Your task to perform on an android device: Show me the alarms in the clock app Image 0: 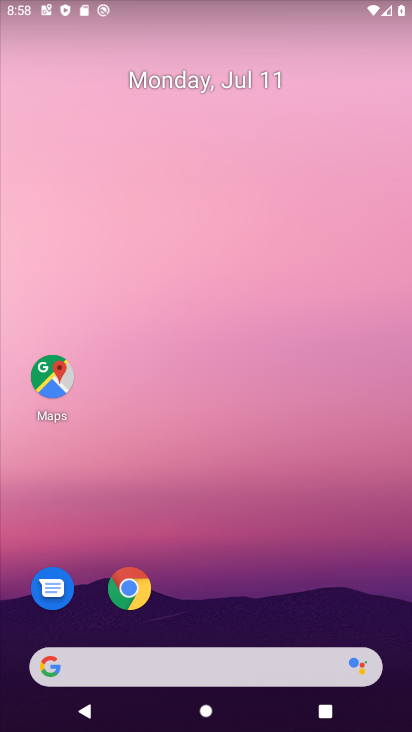
Step 0: drag from (204, 556) to (332, 7)
Your task to perform on an android device: Show me the alarms in the clock app Image 1: 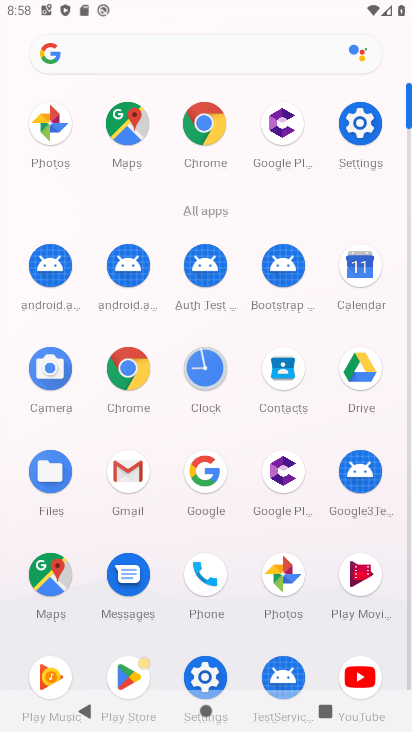
Step 1: click (212, 366)
Your task to perform on an android device: Show me the alarms in the clock app Image 2: 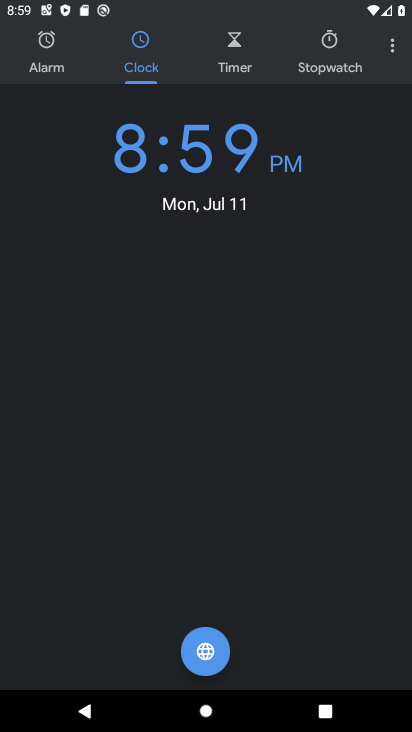
Step 2: click (45, 28)
Your task to perform on an android device: Show me the alarms in the clock app Image 3: 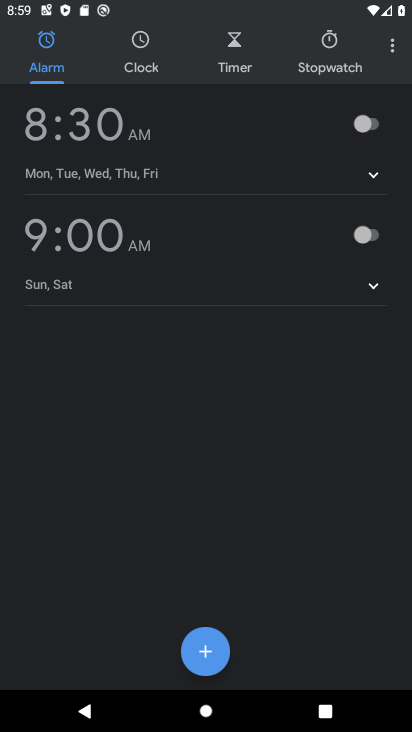
Step 3: click (354, 121)
Your task to perform on an android device: Show me the alarms in the clock app Image 4: 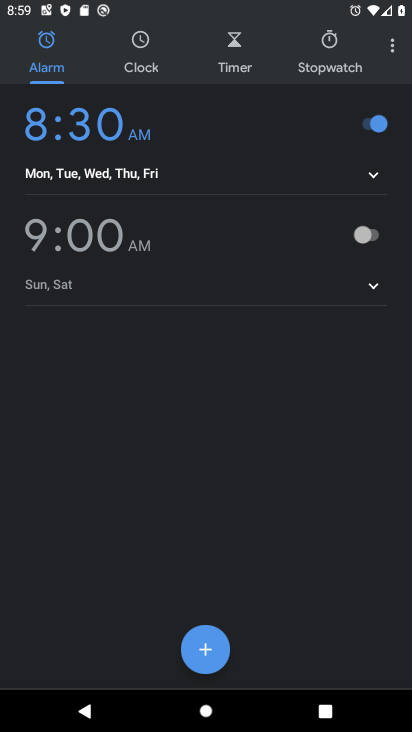
Step 4: task complete